Your task to perform on an android device: How big is a lion? Image 0: 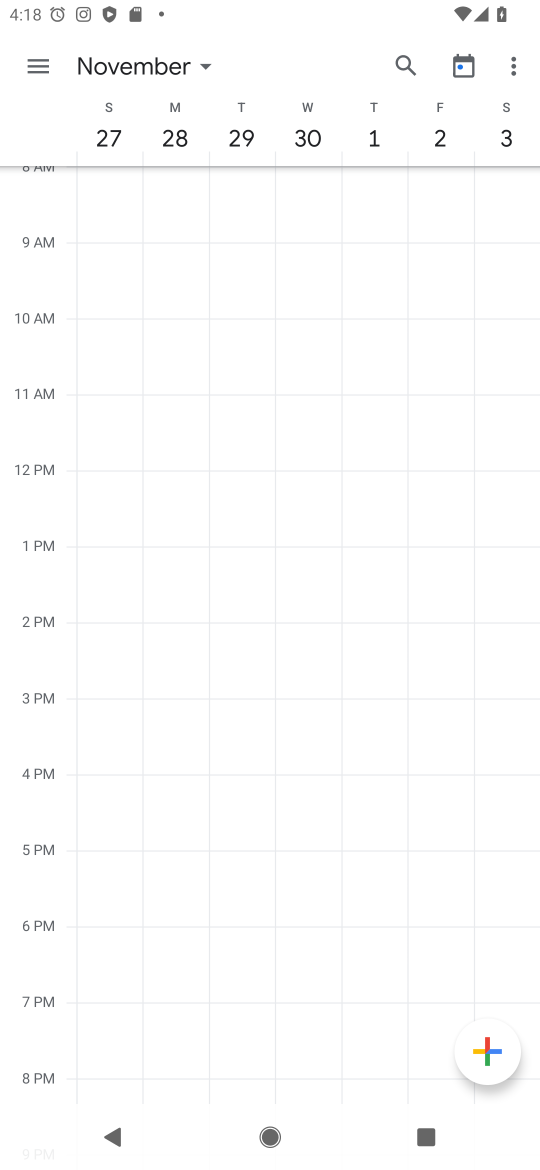
Step 0: press home button
Your task to perform on an android device: How big is a lion? Image 1: 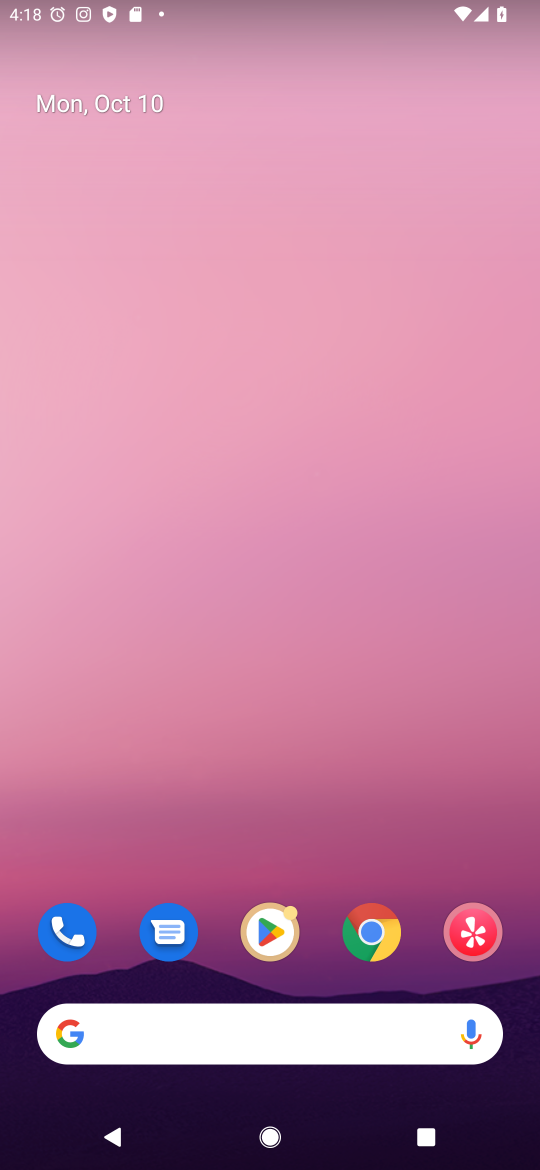
Step 1: click (265, 1037)
Your task to perform on an android device: How big is a lion? Image 2: 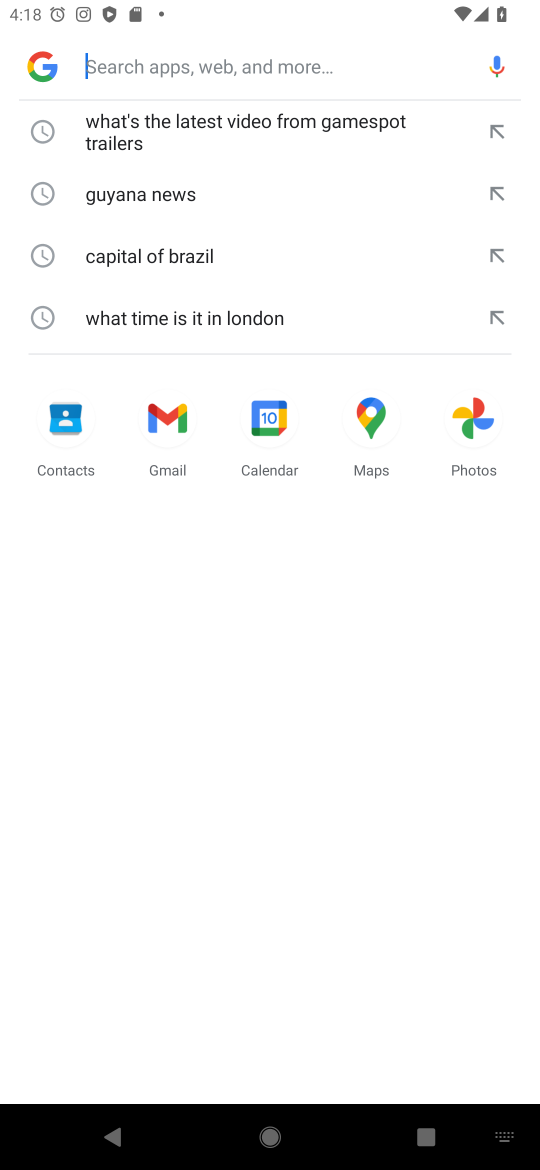
Step 2: type "How big is a lion"
Your task to perform on an android device: How big is a lion? Image 3: 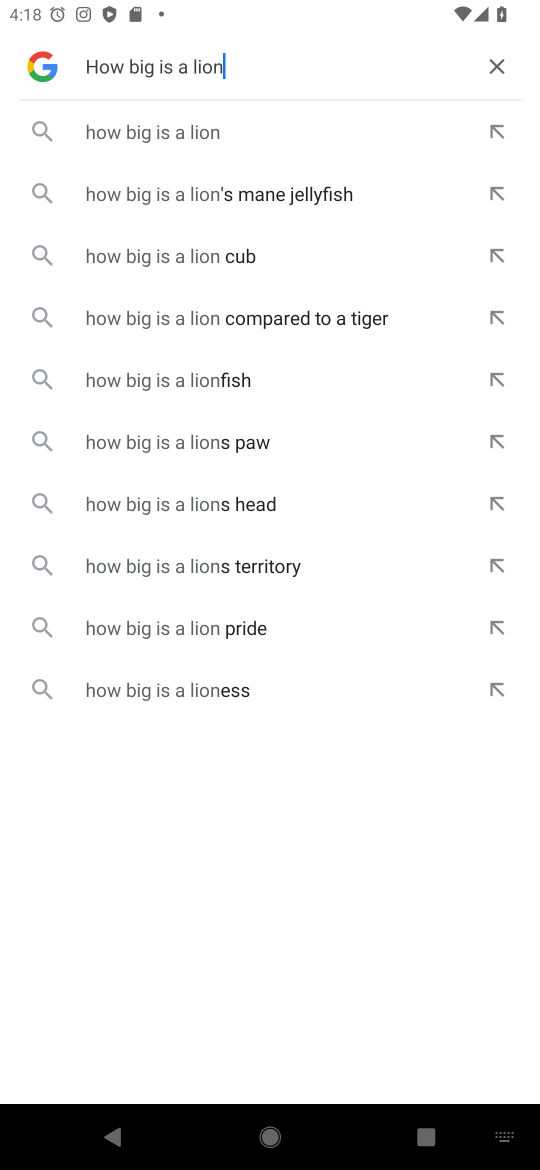
Step 3: press enter
Your task to perform on an android device: How big is a lion? Image 4: 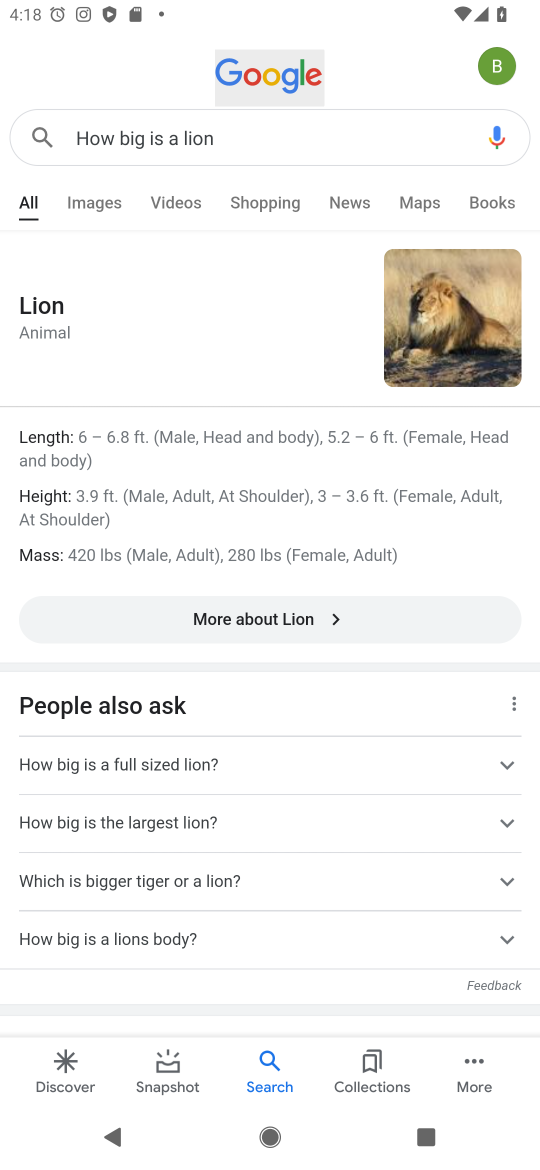
Step 4: task complete